Your task to perform on an android device: Turn off the flashlight Image 0: 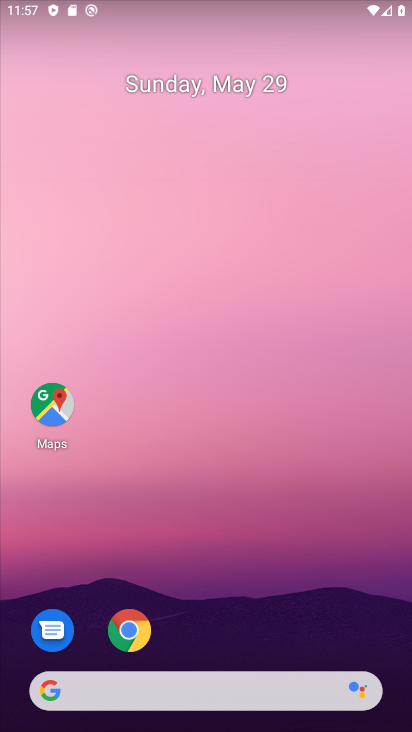
Step 0: drag from (208, 5) to (183, 603)
Your task to perform on an android device: Turn off the flashlight Image 1: 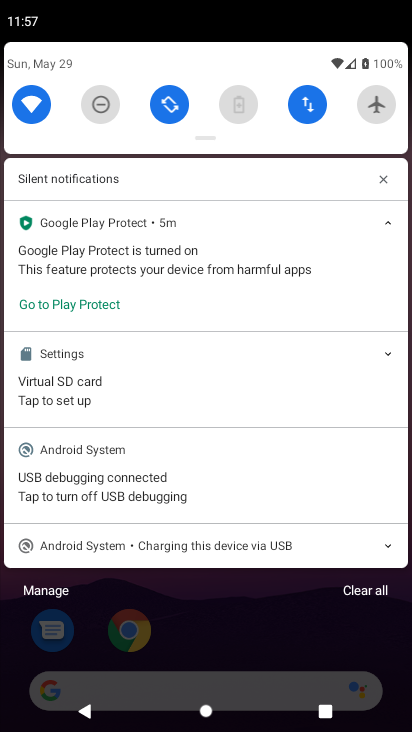
Step 1: drag from (212, 144) to (225, 687)
Your task to perform on an android device: Turn off the flashlight Image 2: 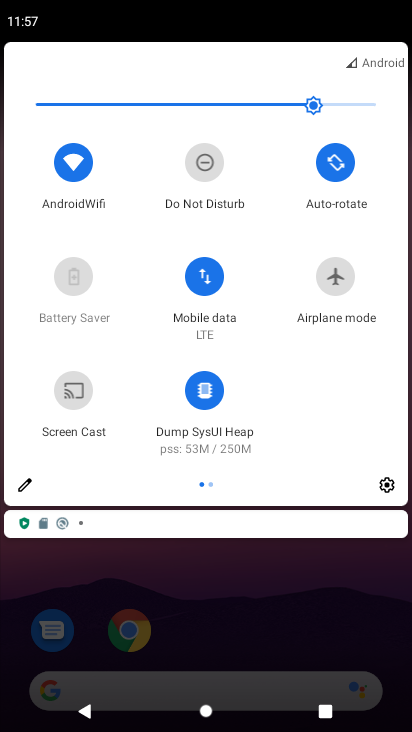
Step 2: click (24, 486)
Your task to perform on an android device: Turn off the flashlight Image 3: 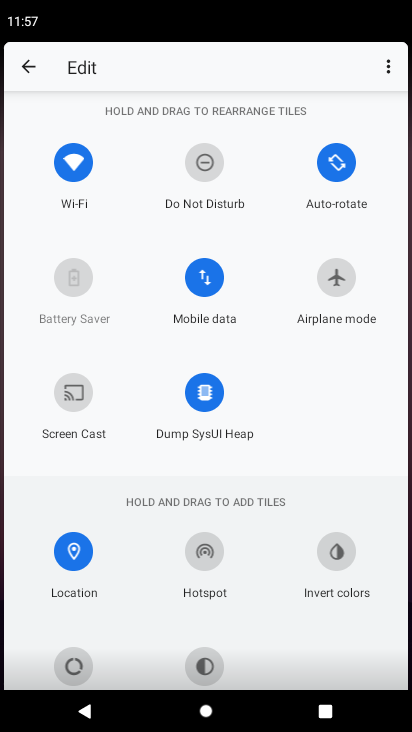
Step 3: task complete